Your task to perform on an android device: Go to Maps Image 0: 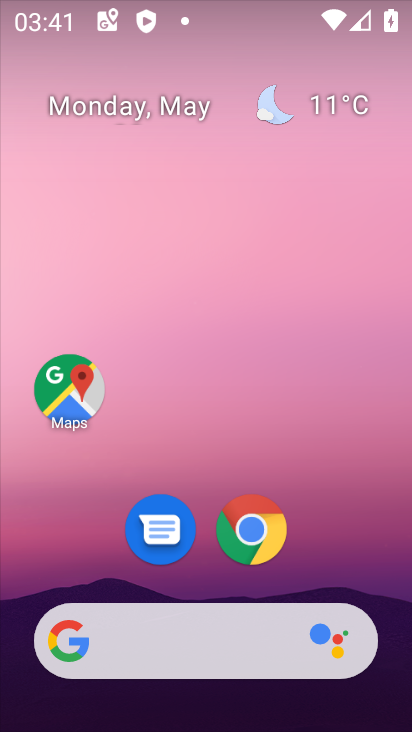
Step 0: click (64, 391)
Your task to perform on an android device: Go to Maps Image 1: 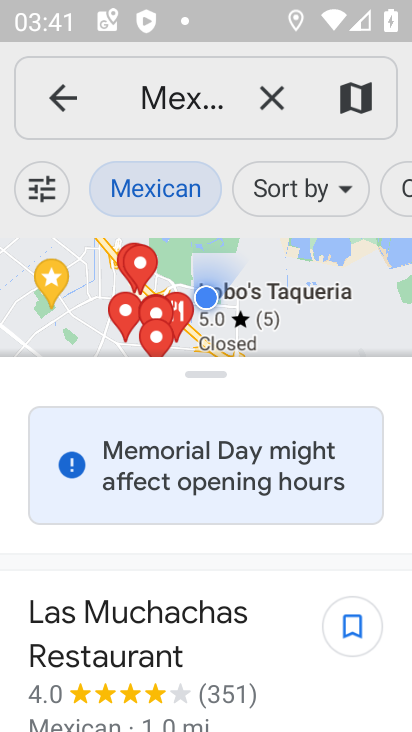
Step 1: task complete